Your task to perform on an android device: Search for the best rated phone case for the iPhone 8. Image 0: 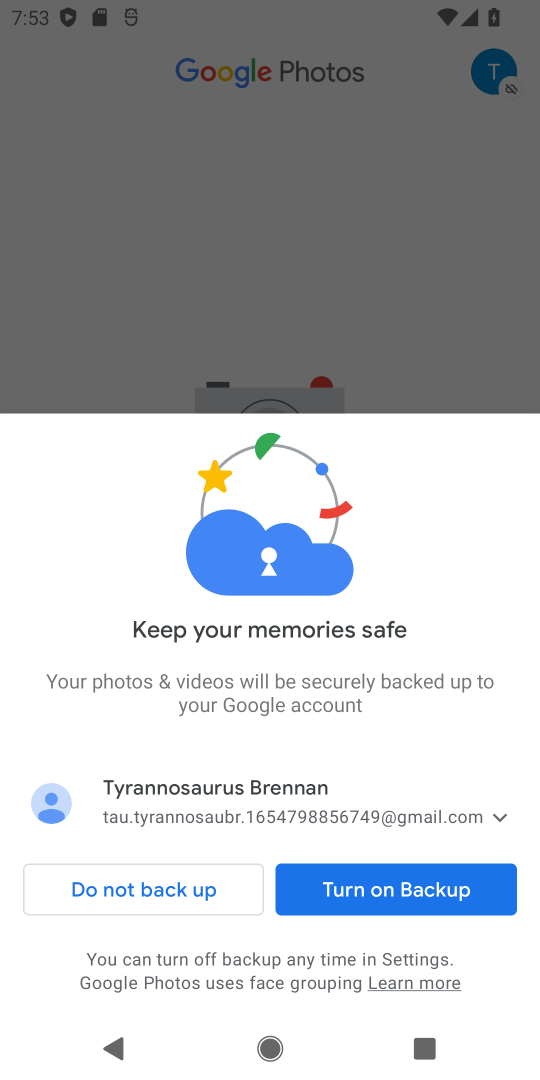
Step 0: press home button
Your task to perform on an android device: Search for the best rated phone case for the iPhone 8. Image 1: 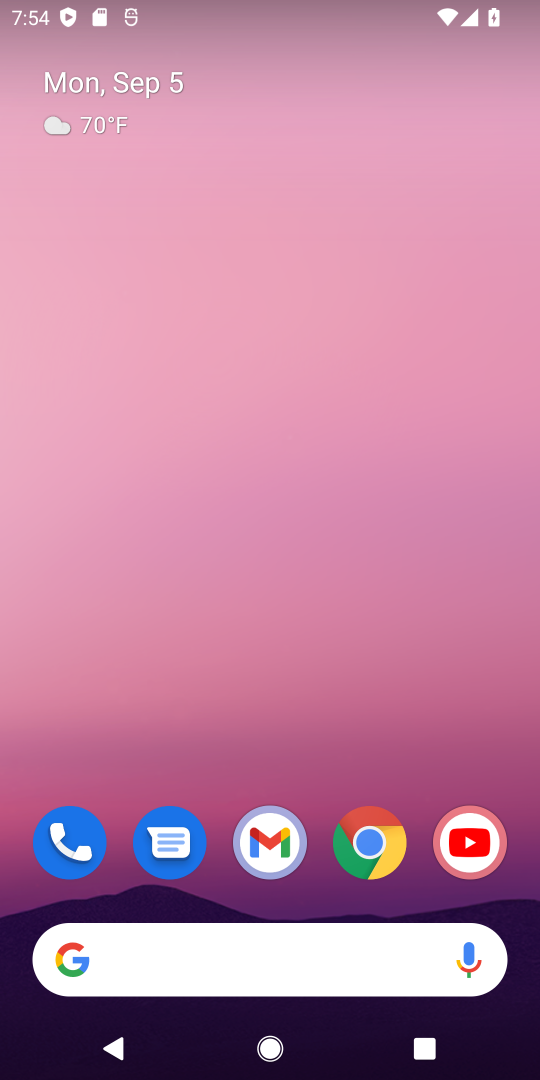
Step 1: click (369, 844)
Your task to perform on an android device: Search for the best rated phone case for the iPhone 8. Image 2: 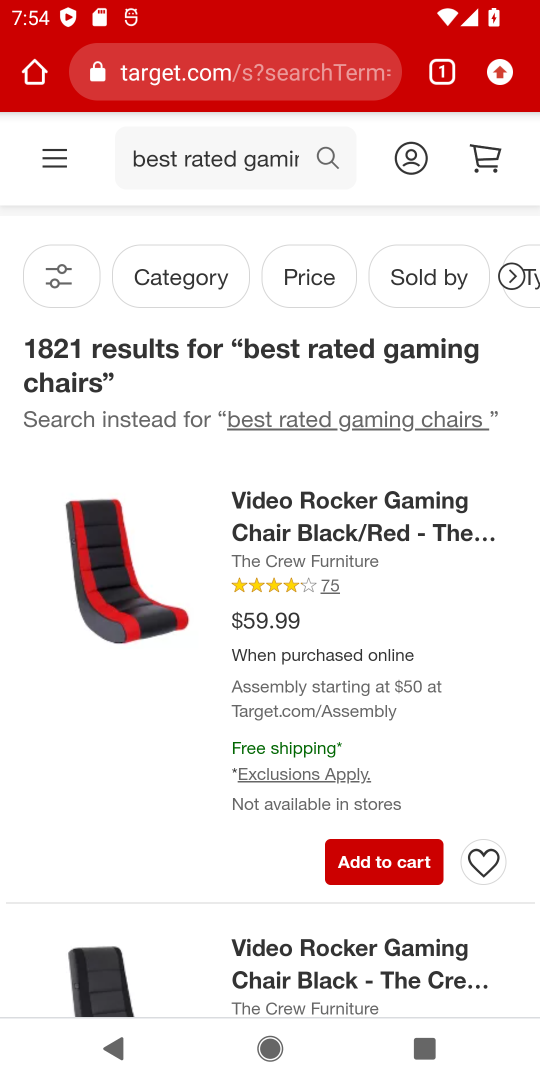
Step 2: click (321, 70)
Your task to perform on an android device: Search for the best rated phone case for the iPhone 8. Image 3: 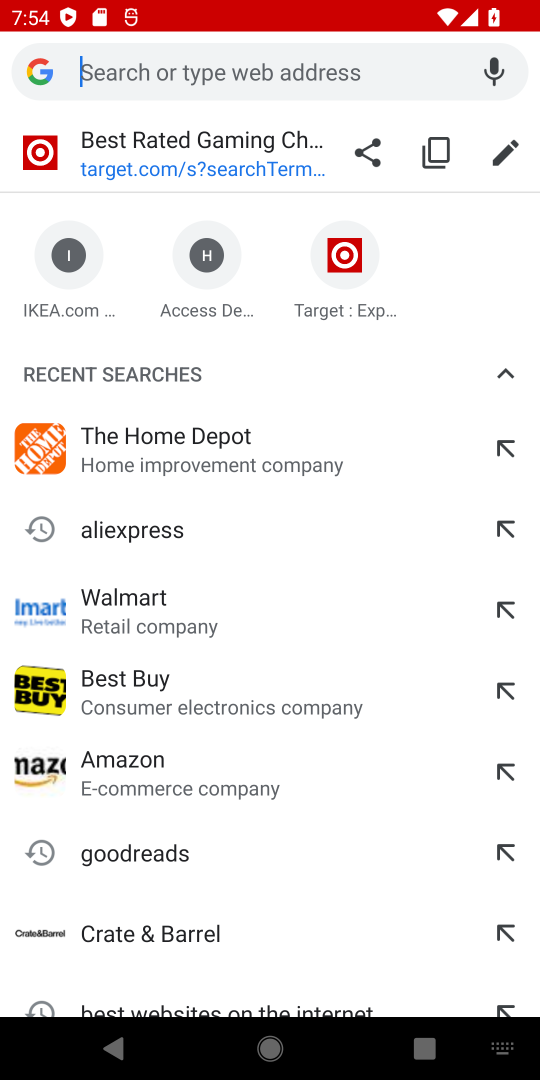
Step 3: type "best rated phone case for the iPhone 8"
Your task to perform on an android device: Search for the best rated phone case for the iPhone 8. Image 4: 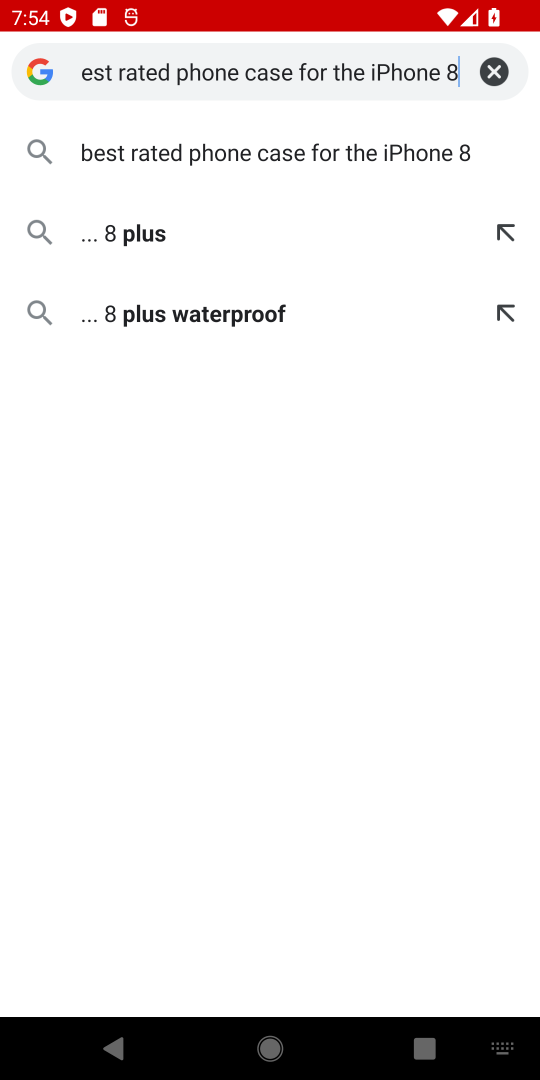
Step 4: click (427, 158)
Your task to perform on an android device: Search for the best rated phone case for the iPhone 8. Image 5: 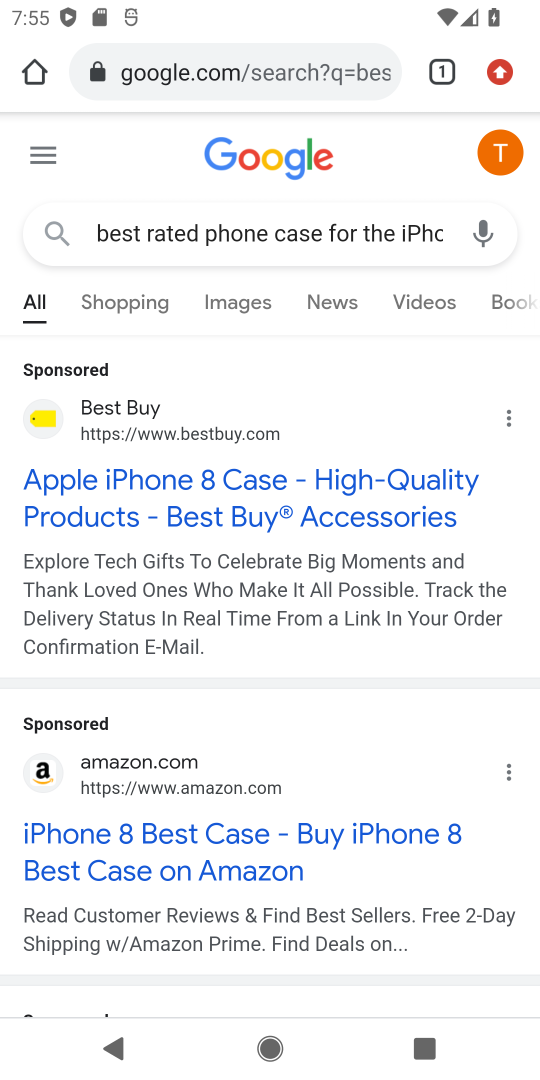
Step 5: drag from (400, 784) to (529, 582)
Your task to perform on an android device: Search for the best rated phone case for the iPhone 8. Image 6: 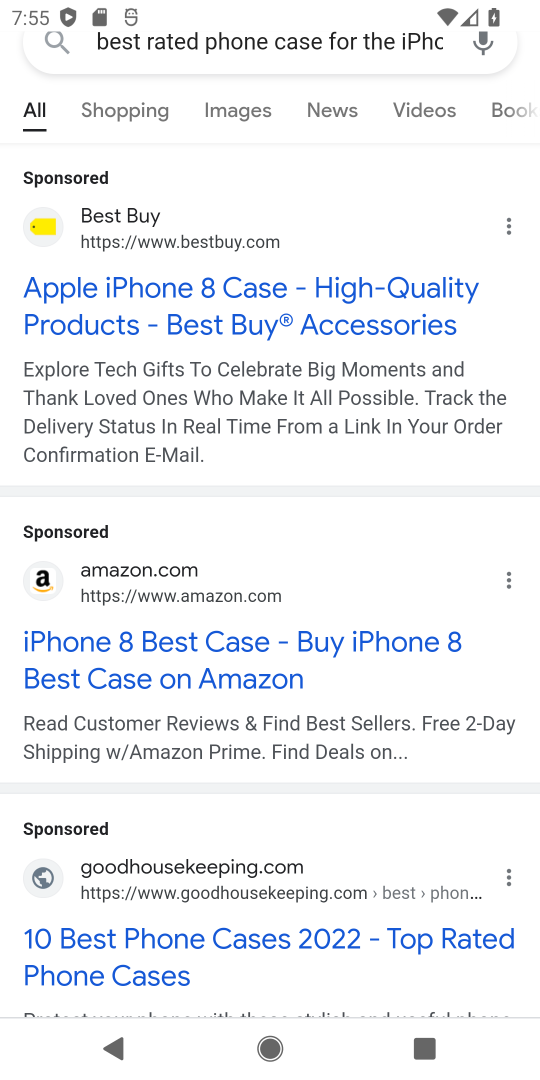
Step 6: click (327, 681)
Your task to perform on an android device: Search for the best rated phone case for the iPhone 8. Image 7: 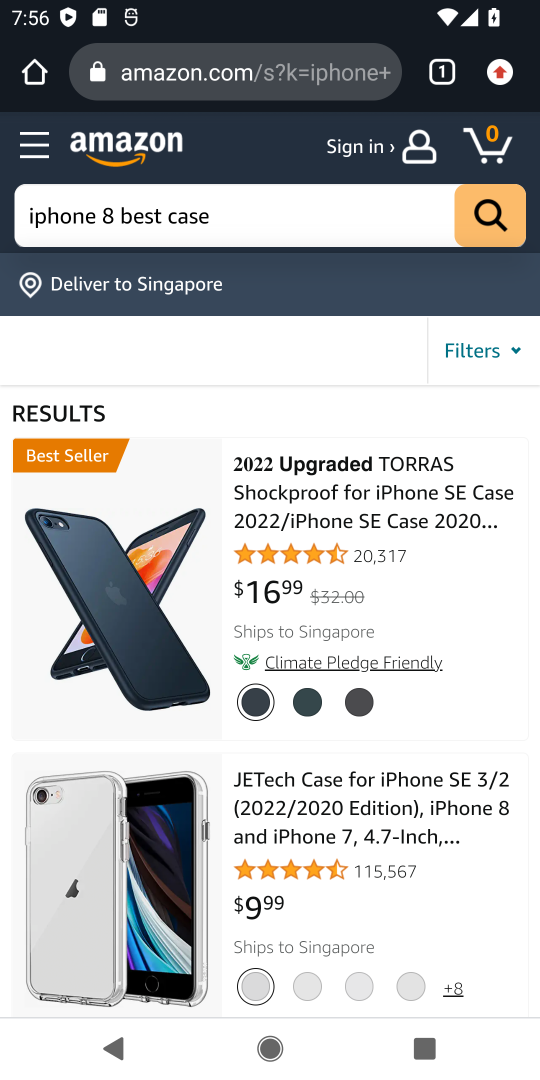
Step 7: task complete